Your task to perform on an android device: find which apps use the phone's location Image 0: 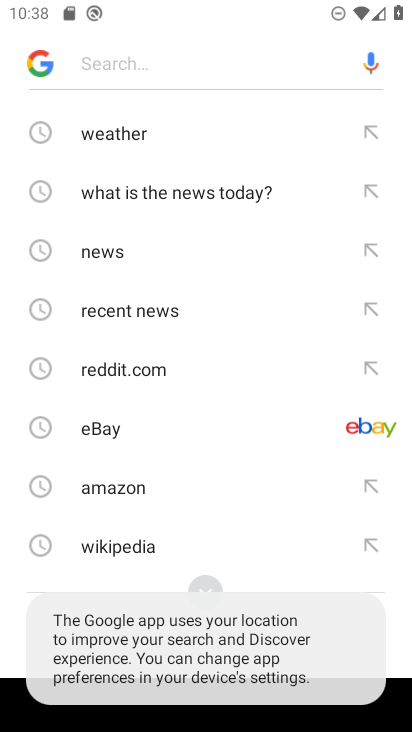
Step 0: press home button
Your task to perform on an android device: find which apps use the phone's location Image 1: 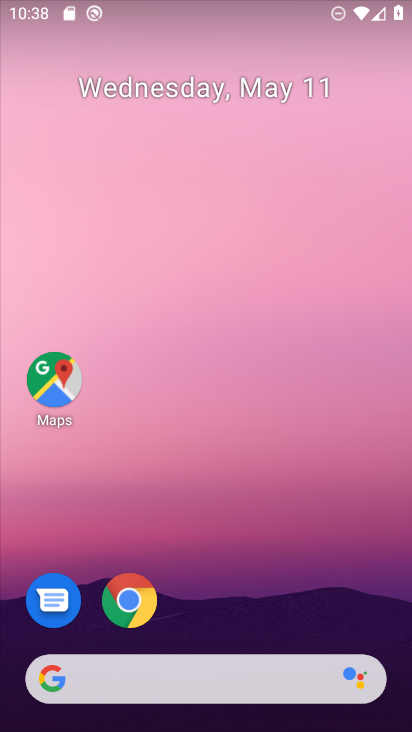
Step 1: drag from (322, 603) to (347, 118)
Your task to perform on an android device: find which apps use the phone's location Image 2: 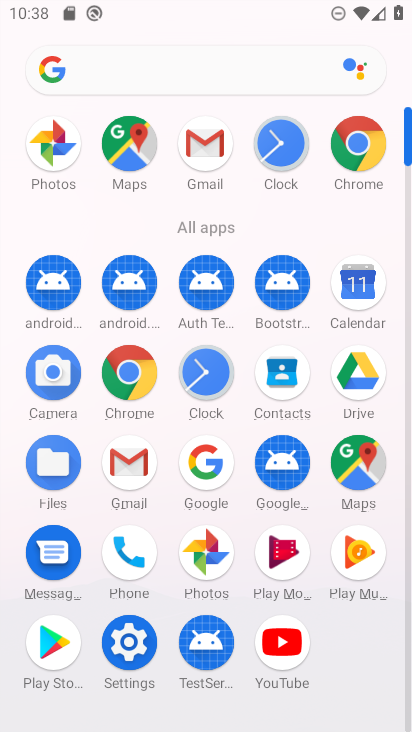
Step 2: click (131, 541)
Your task to perform on an android device: find which apps use the phone's location Image 3: 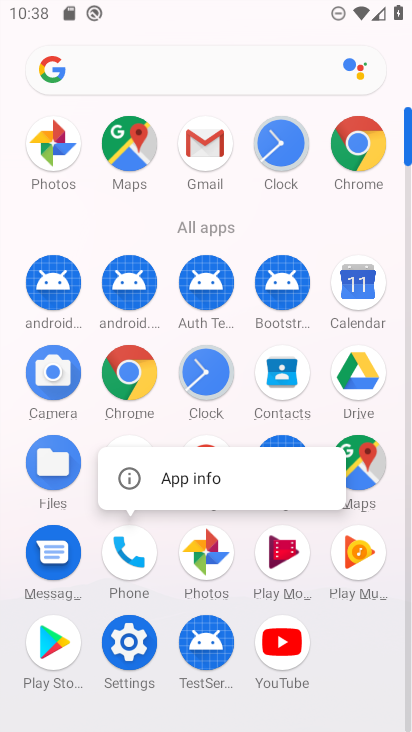
Step 3: click (221, 473)
Your task to perform on an android device: find which apps use the phone's location Image 4: 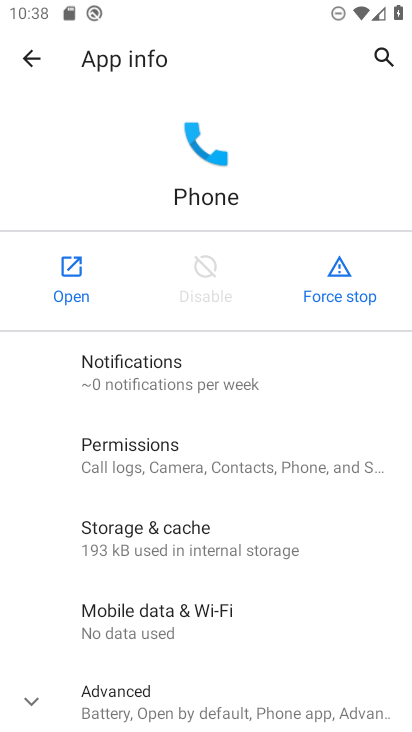
Step 4: click (128, 467)
Your task to perform on an android device: find which apps use the phone's location Image 5: 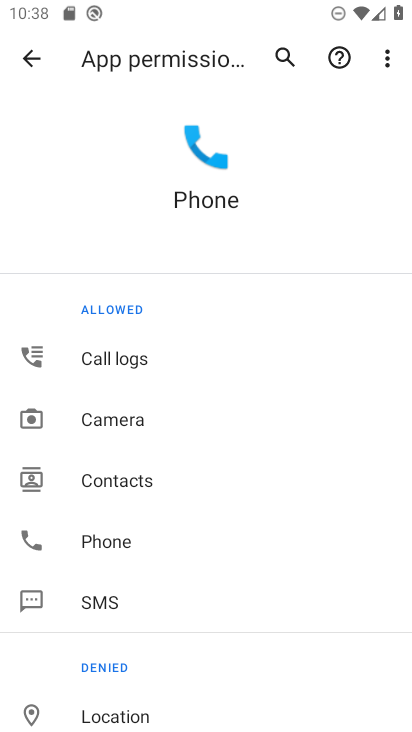
Step 5: drag from (177, 664) to (234, 370)
Your task to perform on an android device: find which apps use the phone's location Image 6: 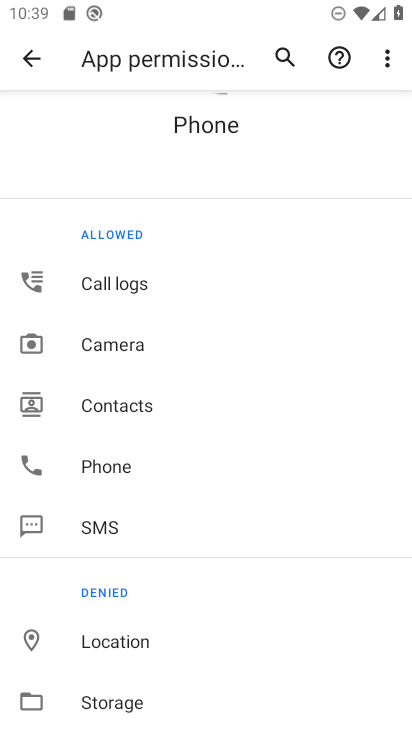
Step 6: click (124, 639)
Your task to perform on an android device: find which apps use the phone's location Image 7: 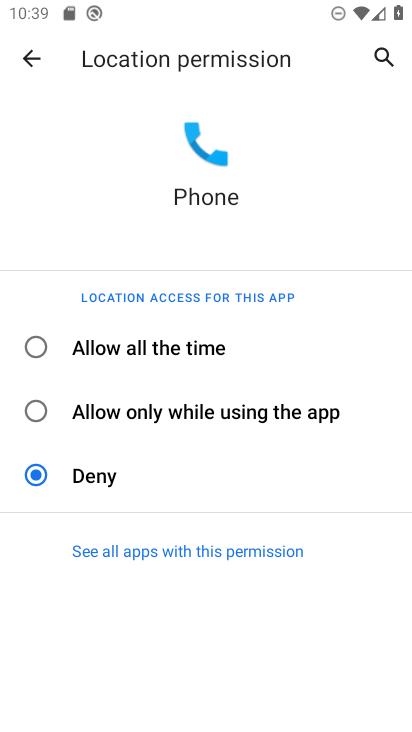
Step 7: task complete